Your task to perform on an android device: Open Chrome and go to the settings page Image 0: 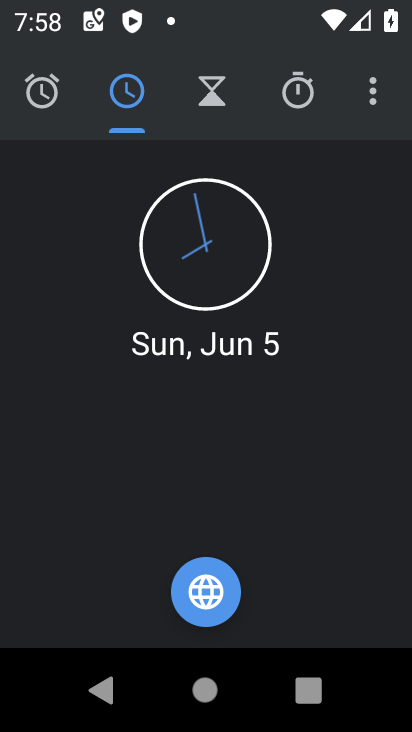
Step 0: press home button
Your task to perform on an android device: Open Chrome and go to the settings page Image 1: 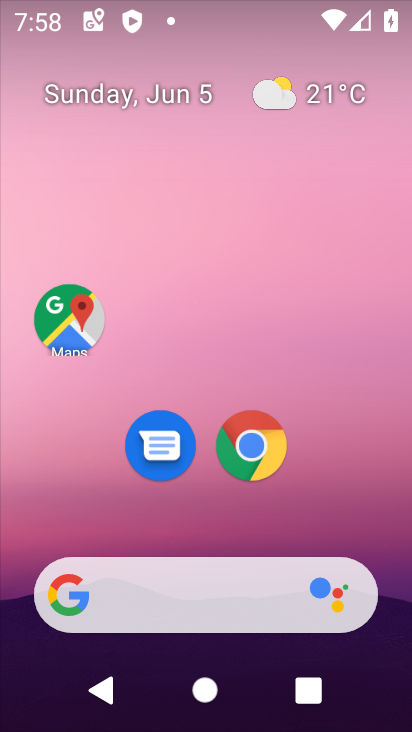
Step 1: click (259, 431)
Your task to perform on an android device: Open Chrome and go to the settings page Image 2: 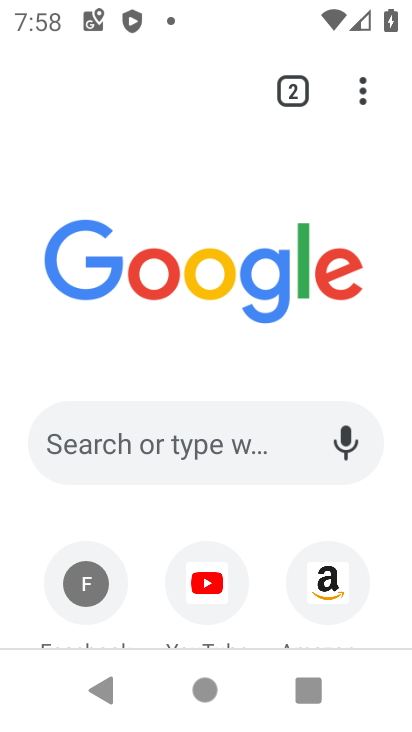
Step 2: task complete